Your task to perform on an android device: turn on the 24-hour format for clock Image 0: 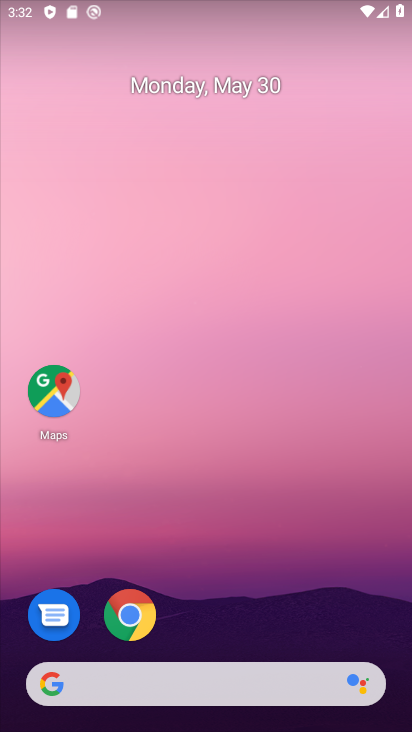
Step 0: drag from (253, 609) to (254, 76)
Your task to perform on an android device: turn on the 24-hour format for clock Image 1: 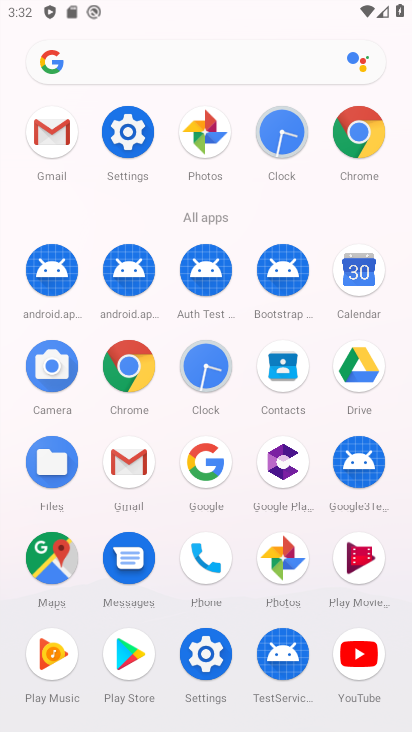
Step 1: click (283, 132)
Your task to perform on an android device: turn on the 24-hour format for clock Image 2: 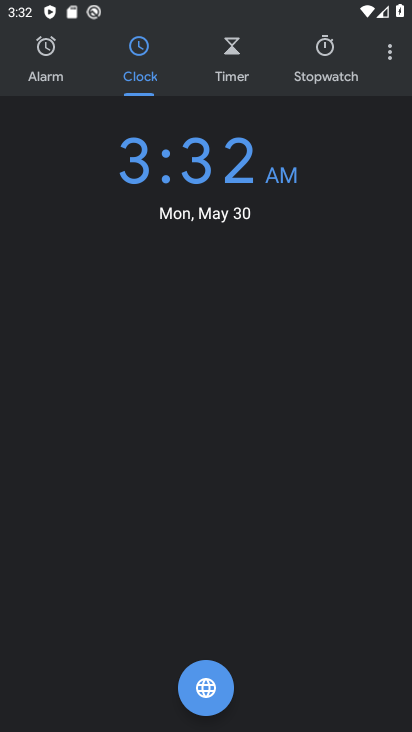
Step 2: click (391, 53)
Your task to perform on an android device: turn on the 24-hour format for clock Image 3: 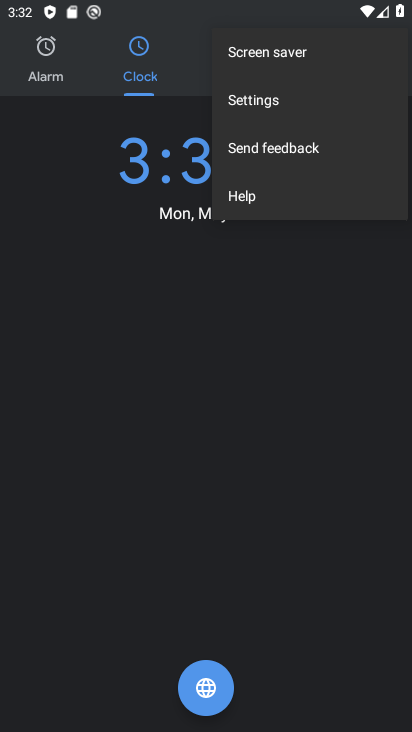
Step 3: click (276, 103)
Your task to perform on an android device: turn on the 24-hour format for clock Image 4: 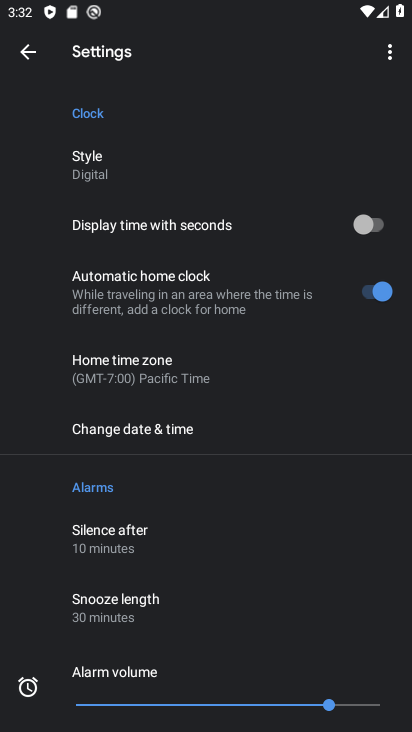
Step 4: click (144, 427)
Your task to perform on an android device: turn on the 24-hour format for clock Image 5: 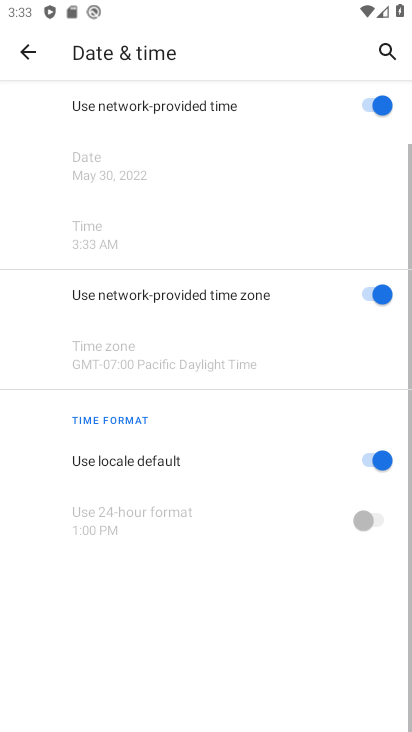
Step 5: click (372, 464)
Your task to perform on an android device: turn on the 24-hour format for clock Image 6: 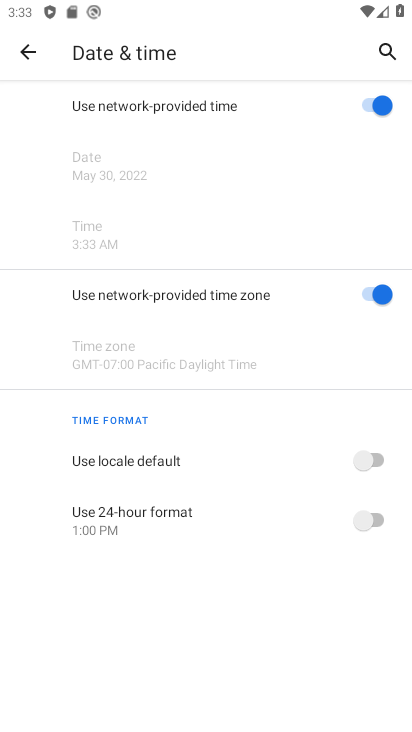
Step 6: click (375, 522)
Your task to perform on an android device: turn on the 24-hour format for clock Image 7: 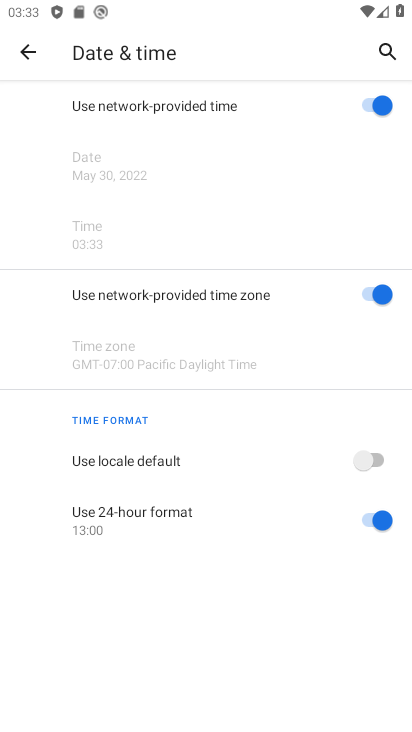
Step 7: task complete